Your task to perform on an android device: turn on notifications settings in the gmail app Image 0: 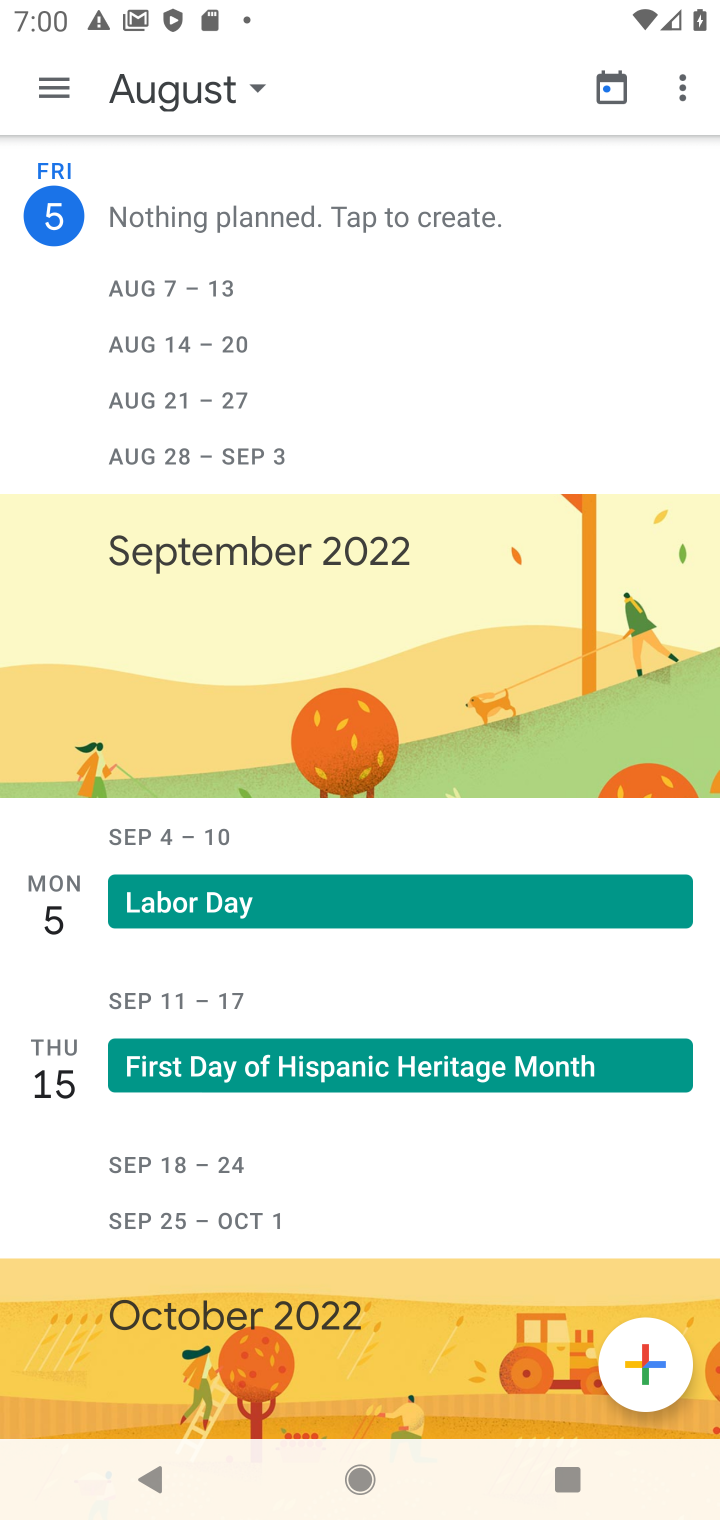
Step 0: press home button
Your task to perform on an android device: turn on notifications settings in the gmail app Image 1: 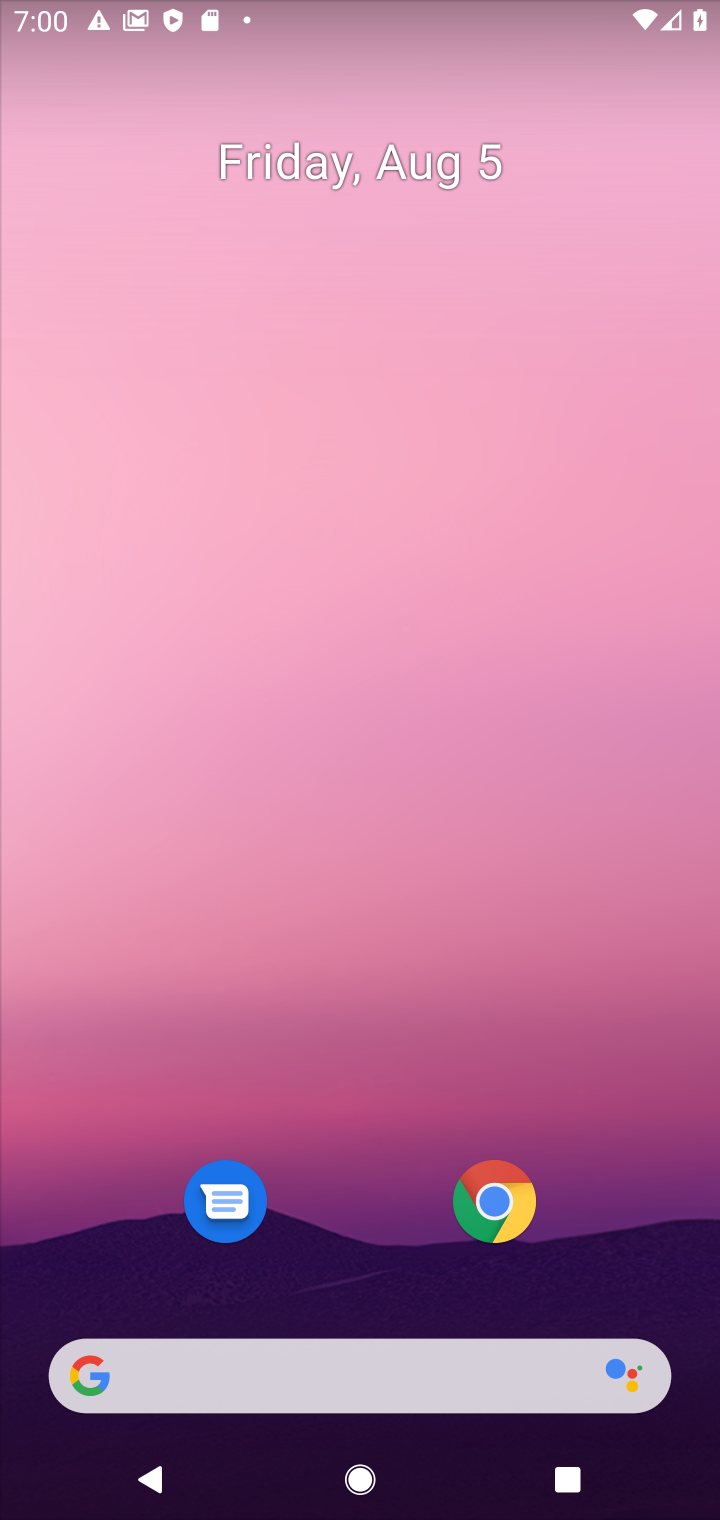
Step 1: drag from (419, 1420) to (569, 444)
Your task to perform on an android device: turn on notifications settings in the gmail app Image 2: 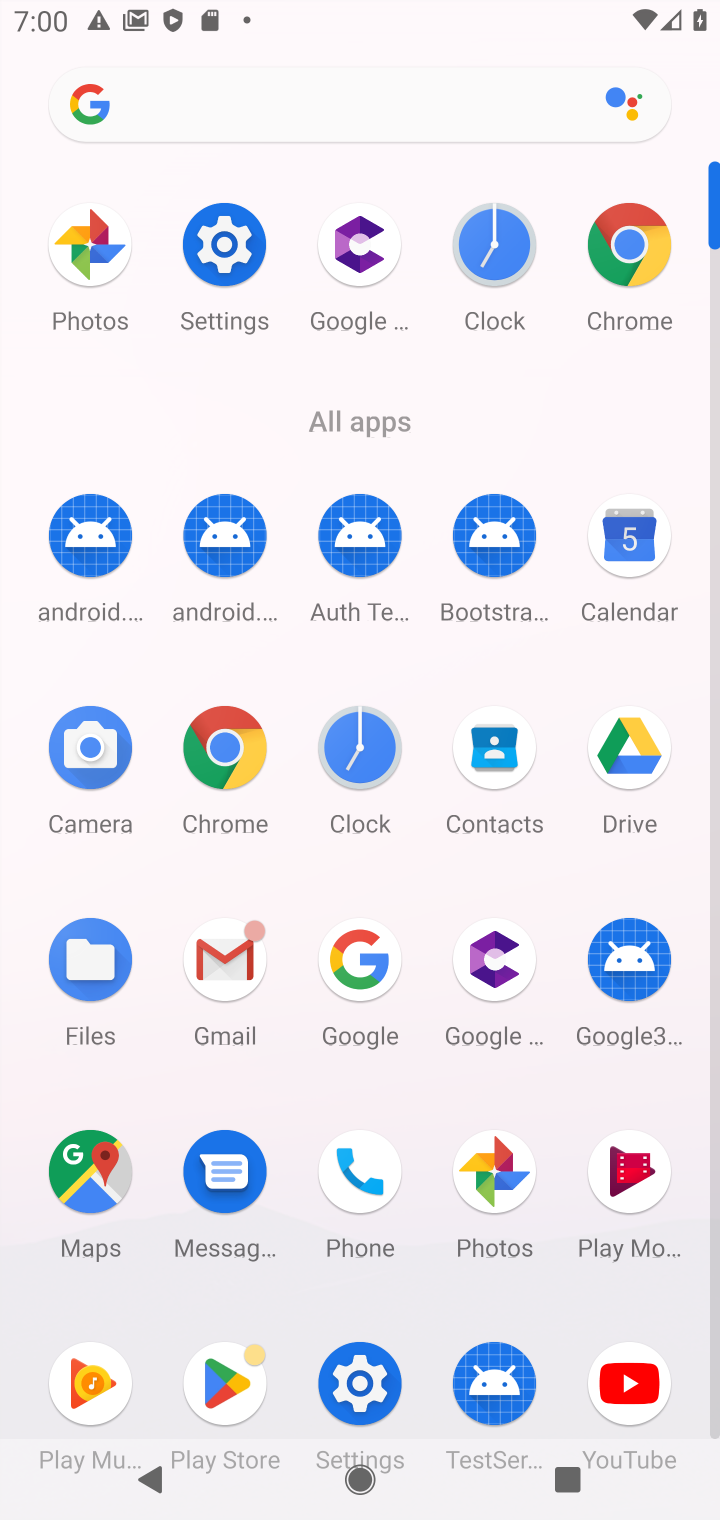
Step 2: click (240, 972)
Your task to perform on an android device: turn on notifications settings in the gmail app Image 3: 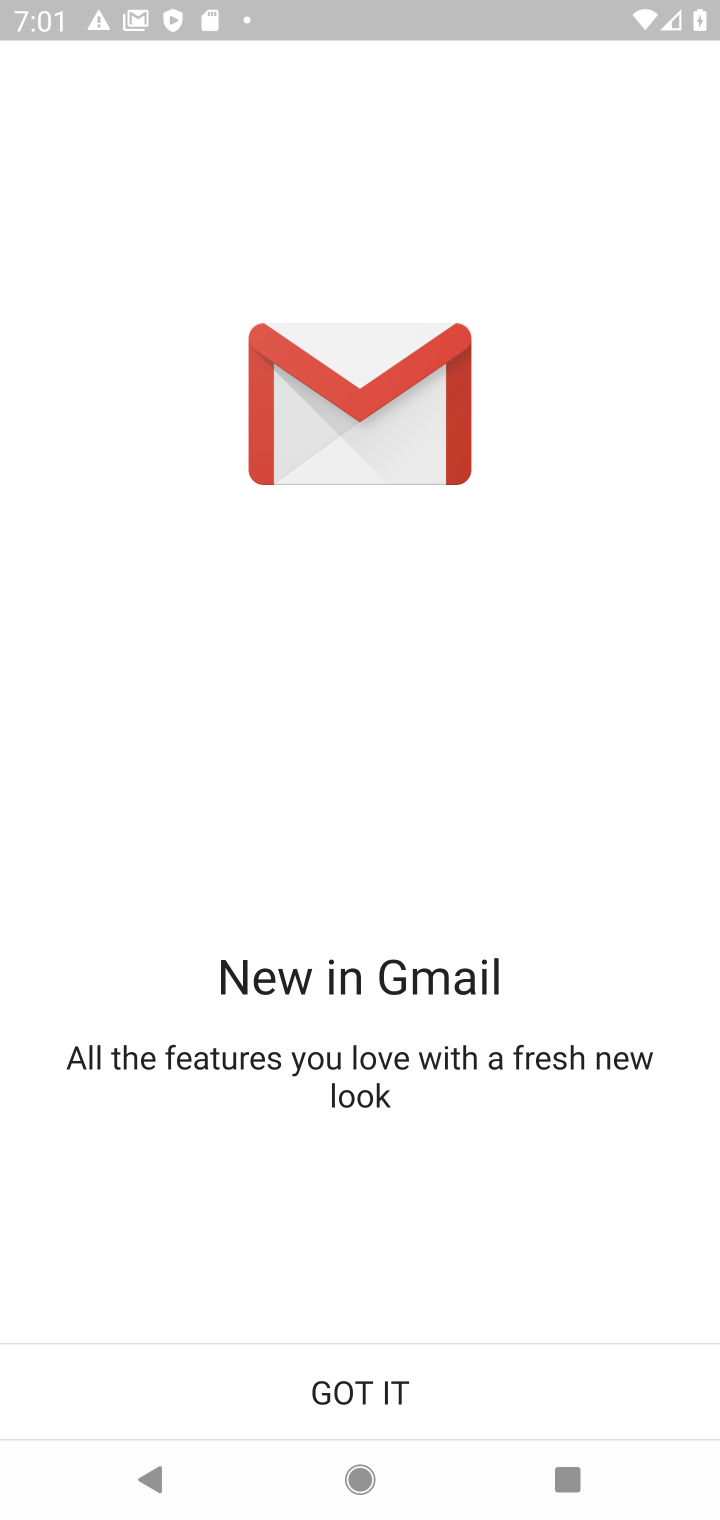
Step 3: click (323, 1365)
Your task to perform on an android device: turn on notifications settings in the gmail app Image 4: 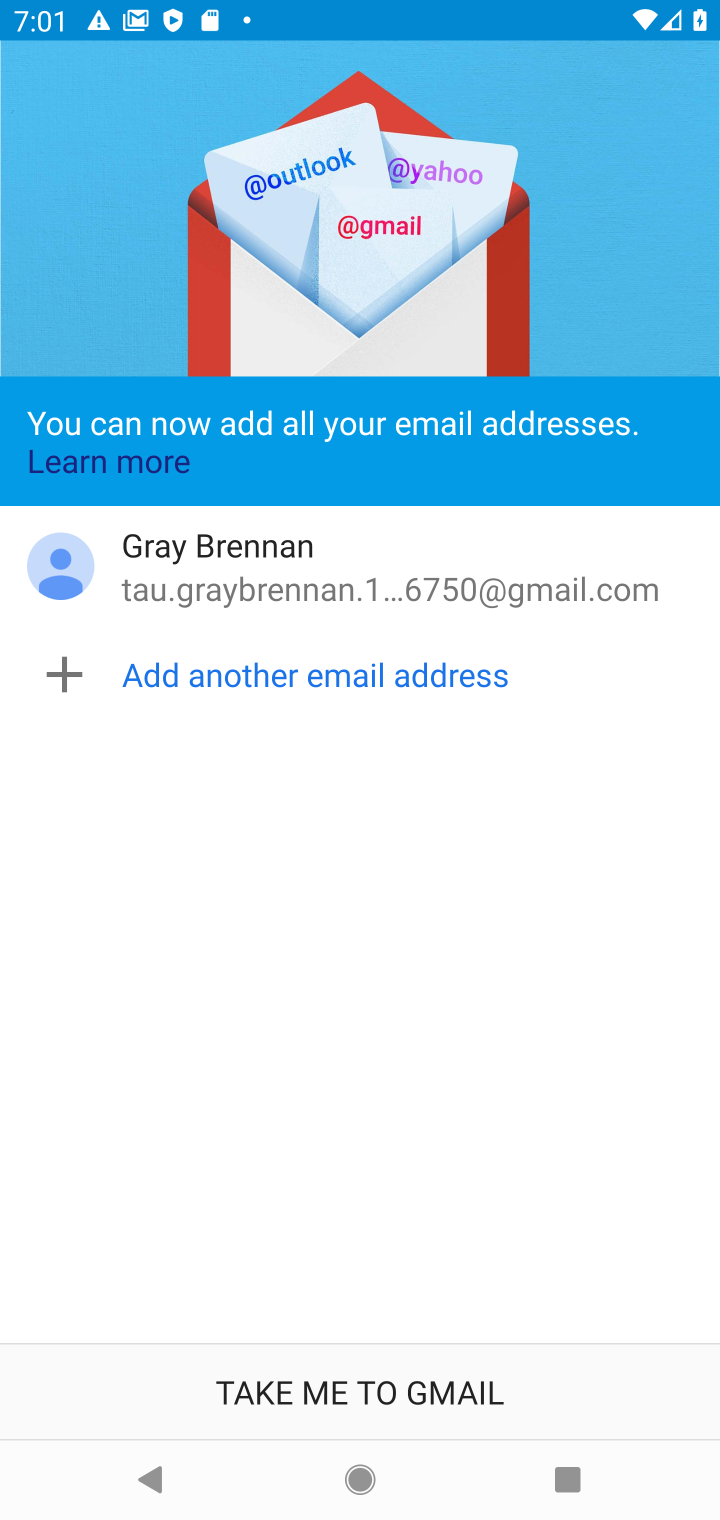
Step 4: click (341, 1408)
Your task to perform on an android device: turn on notifications settings in the gmail app Image 5: 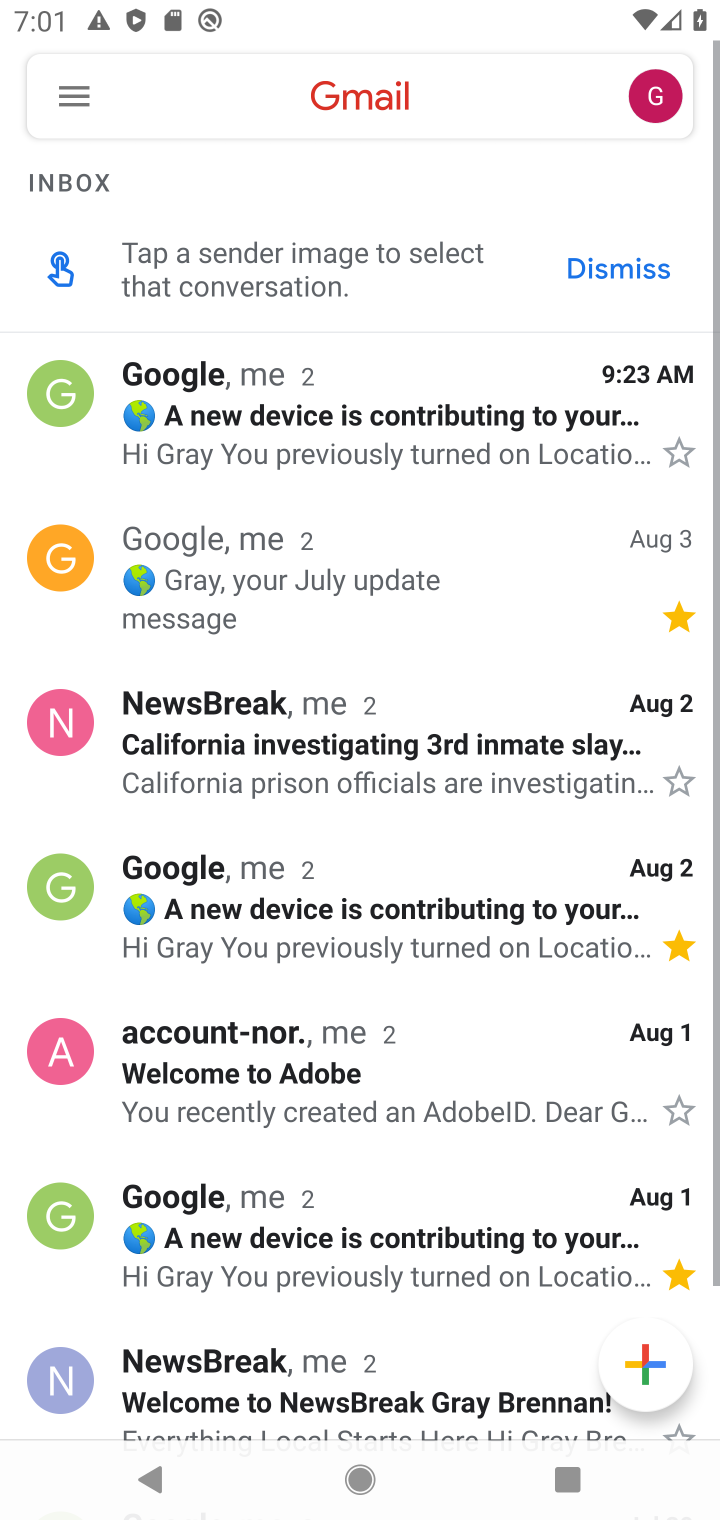
Step 5: click (56, 89)
Your task to perform on an android device: turn on notifications settings in the gmail app Image 6: 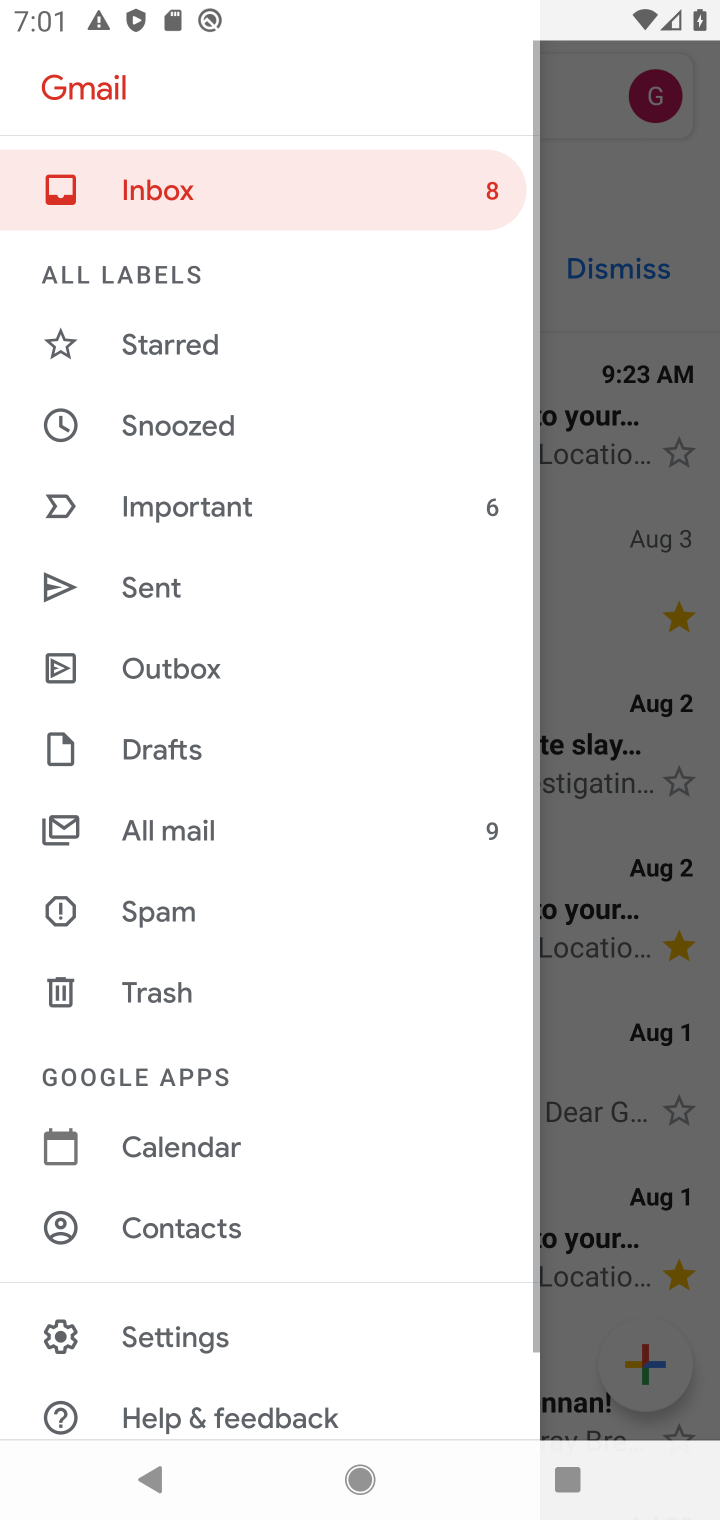
Step 6: click (189, 1349)
Your task to perform on an android device: turn on notifications settings in the gmail app Image 7: 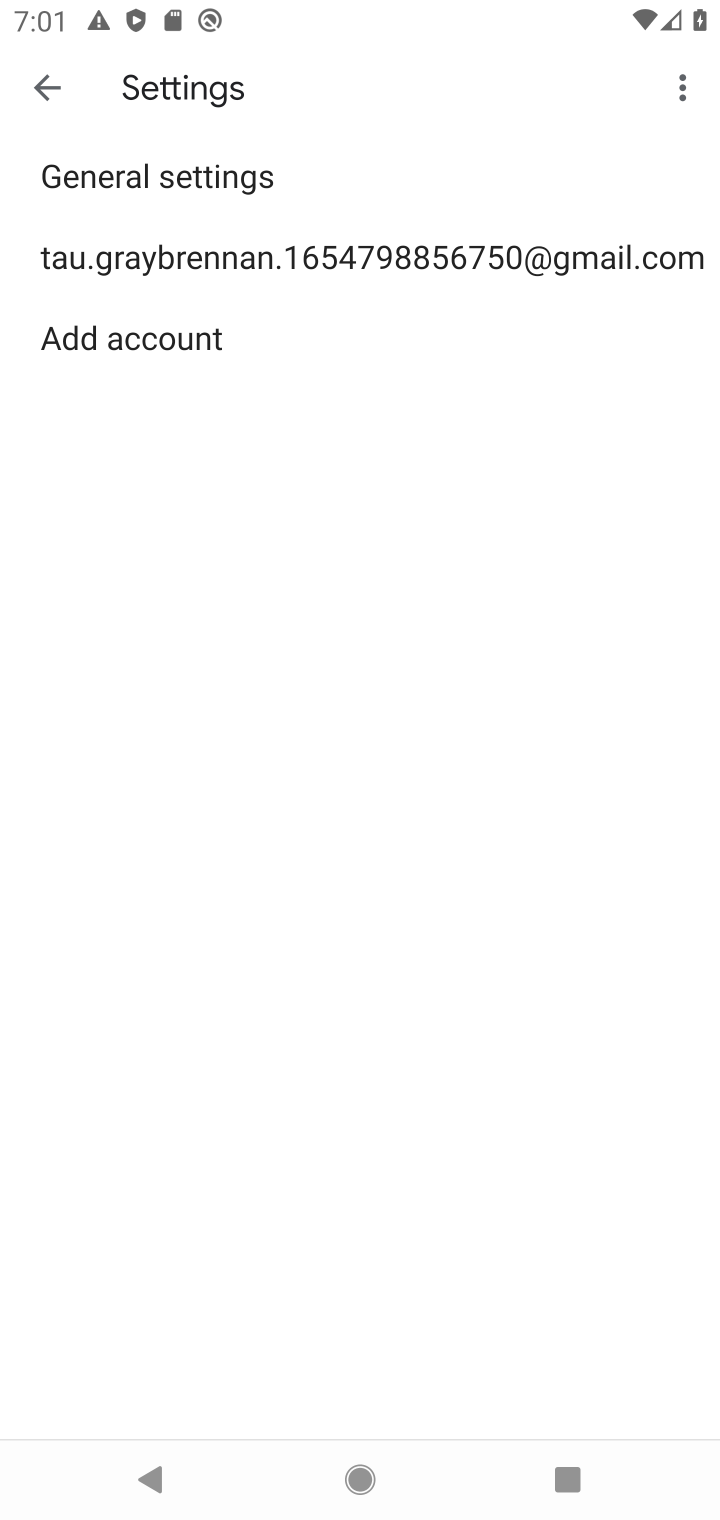
Step 7: click (266, 245)
Your task to perform on an android device: turn on notifications settings in the gmail app Image 8: 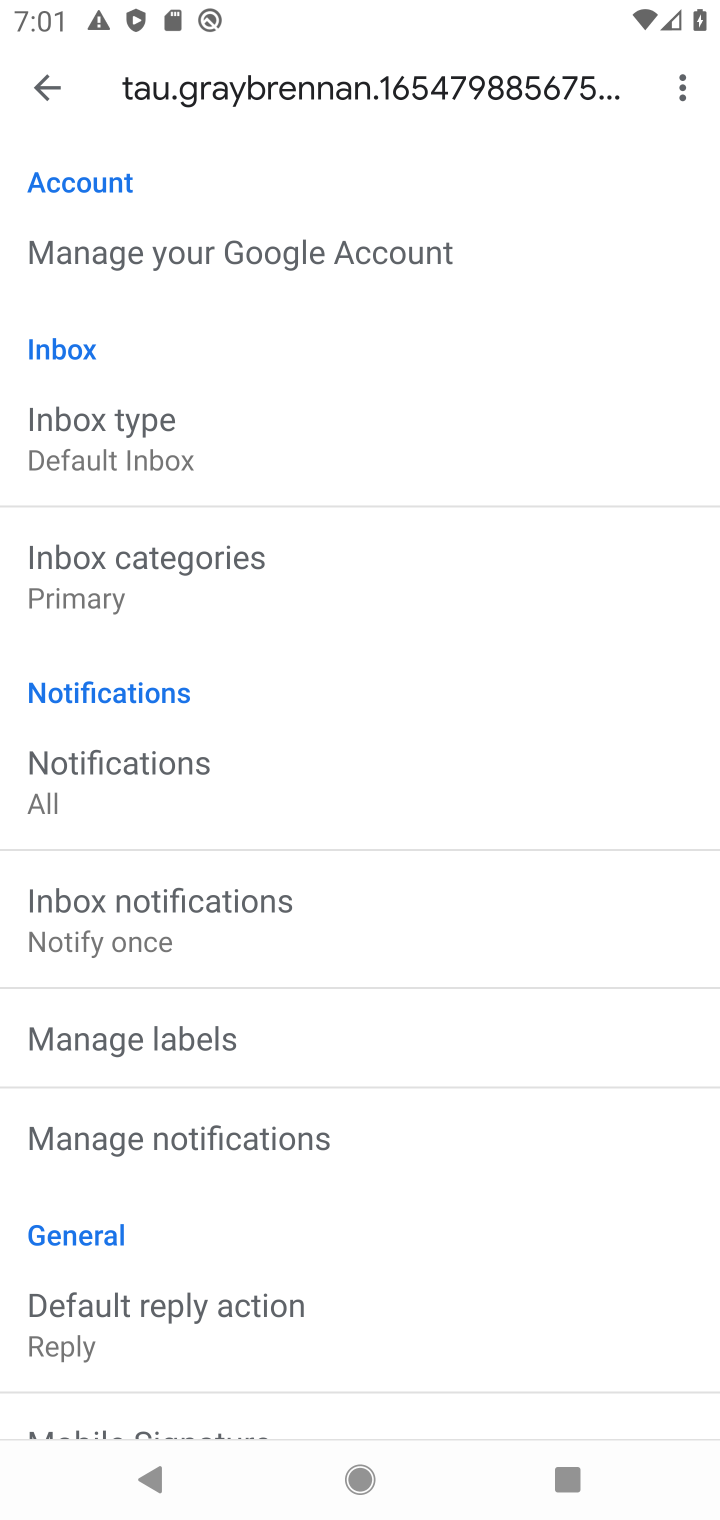
Step 8: click (187, 773)
Your task to perform on an android device: turn on notifications settings in the gmail app Image 9: 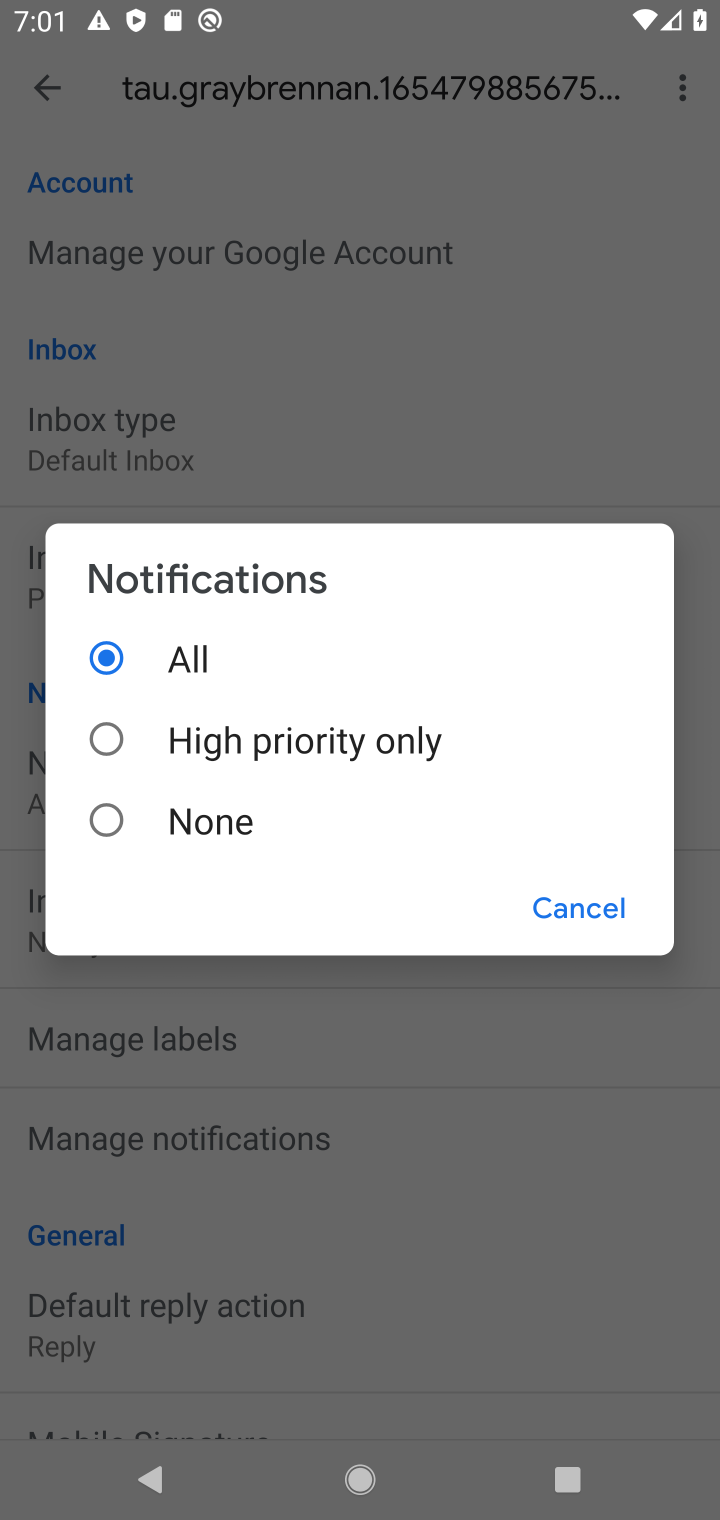
Step 9: task complete